Your task to perform on an android device: Go to ESPN.com Image 0: 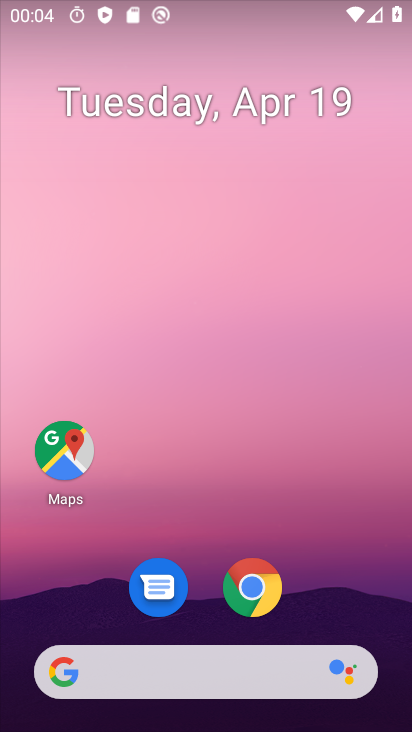
Step 0: drag from (369, 575) to (340, 160)
Your task to perform on an android device: Go to ESPN.com Image 1: 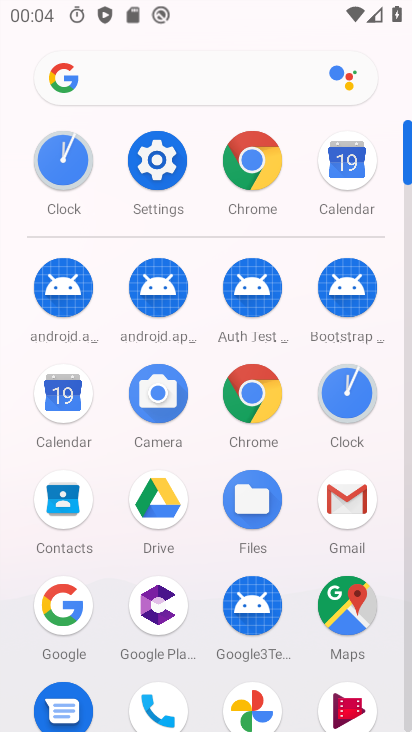
Step 1: click (254, 166)
Your task to perform on an android device: Go to ESPN.com Image 2: 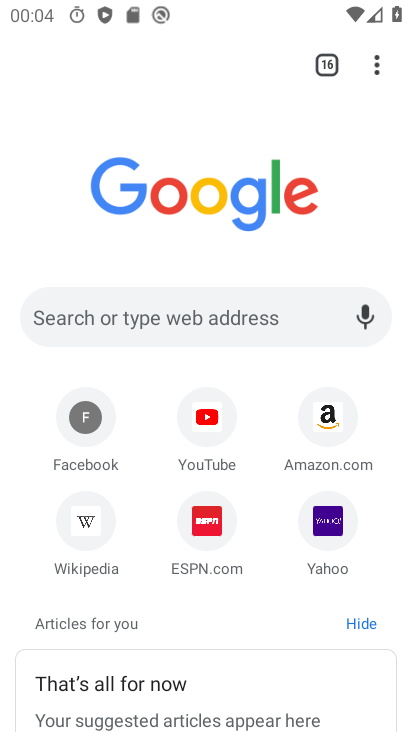
Step 2: click (115, 324)
Your task to perform on an android device: Go to ESPN.com Image 3: 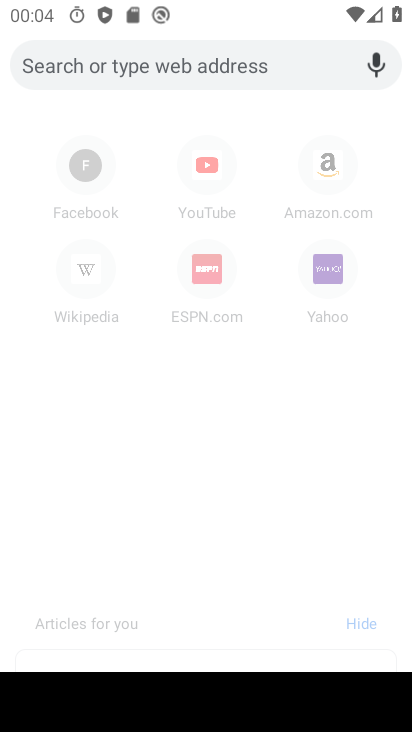
Step 3: type "espn.com"
Your task to perform on an android device: Go to ESPN.com Image 4: 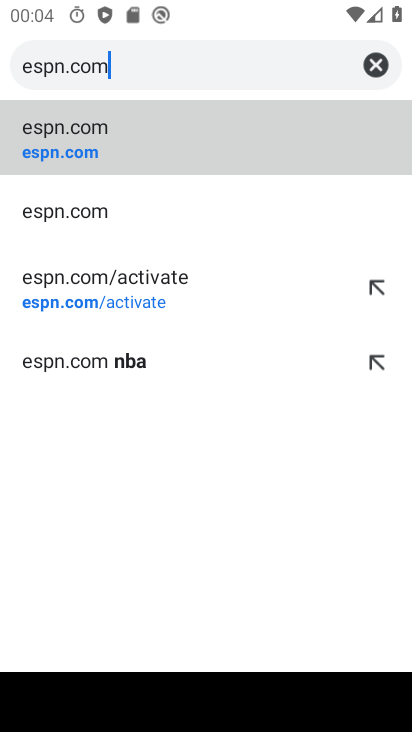
Step 4: click (91, 139)
Your task to perform on an android device: Go to ESPN.com Image 5: 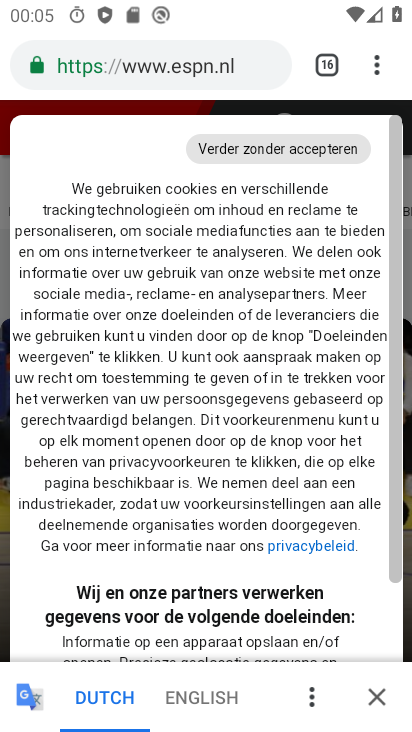
Step 5: task complete